Your task to perform on an android device: see sites visited before in the chrome app Image 0: 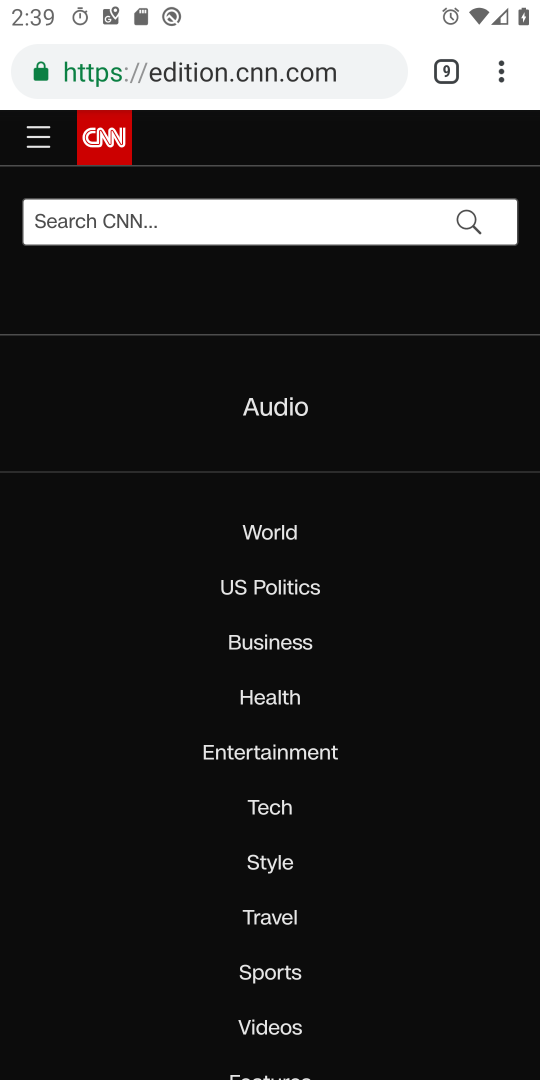
Step 0: click (504, 67)
Your task to perform on an android device: see sites visited before in the chrome app Image 1: 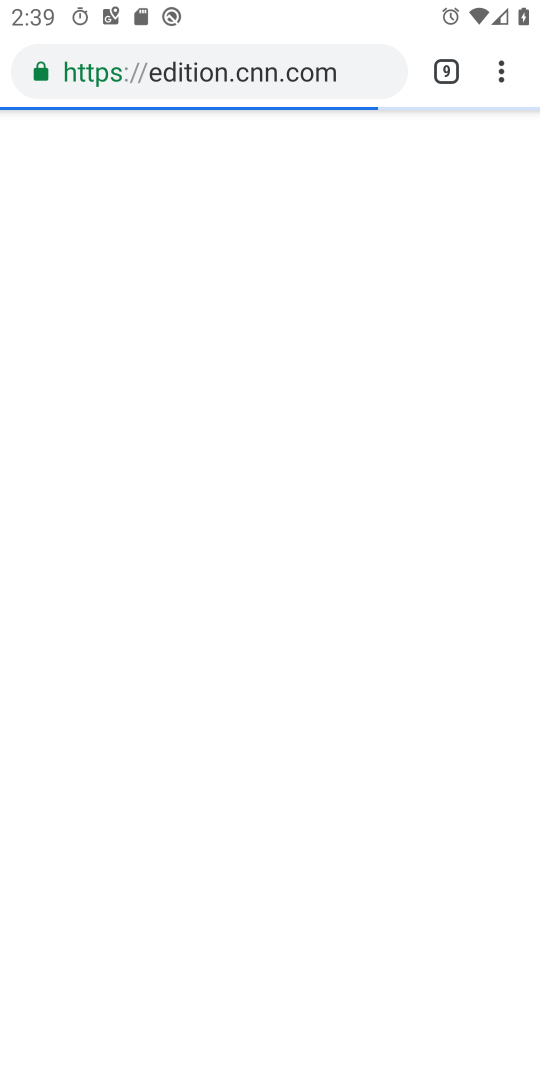
Step 1: task complete